Your task to perform on an android device: What is the news today? Image 0: 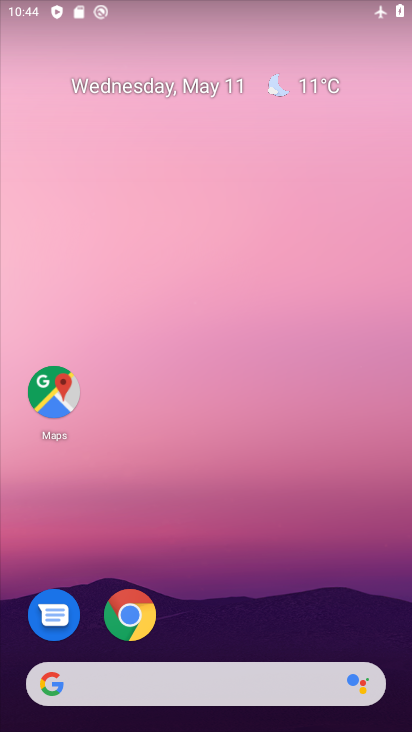
Step 0: click (132, 614)
Your task to perform on an android device: What is the news today? Image 1: 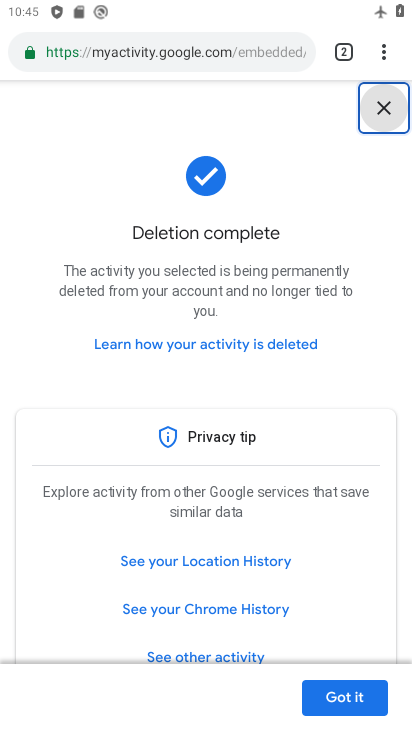
Step 1: click (201, 53)
Your task to perform on an android device: What is the news today? Image 2: 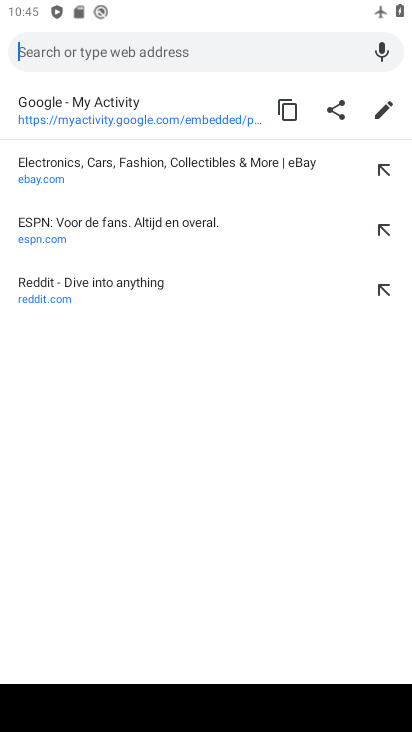
Step 2: type "news"
Your task to perform on an android device: What is the news today? Image 3: 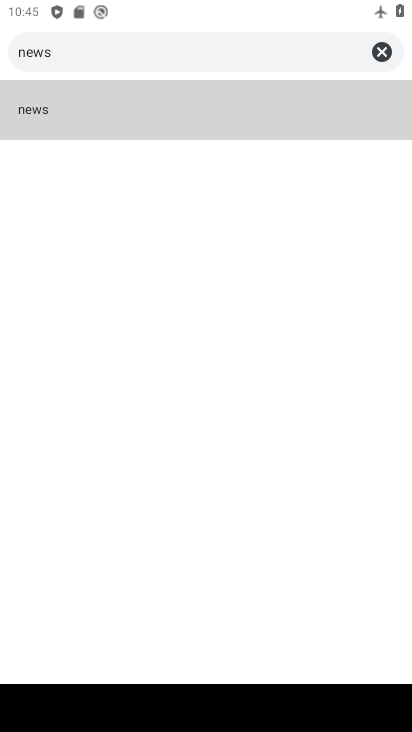
Step 3: click (28, 105)
Your task to perform on an android device: What is the news today? Image 4: 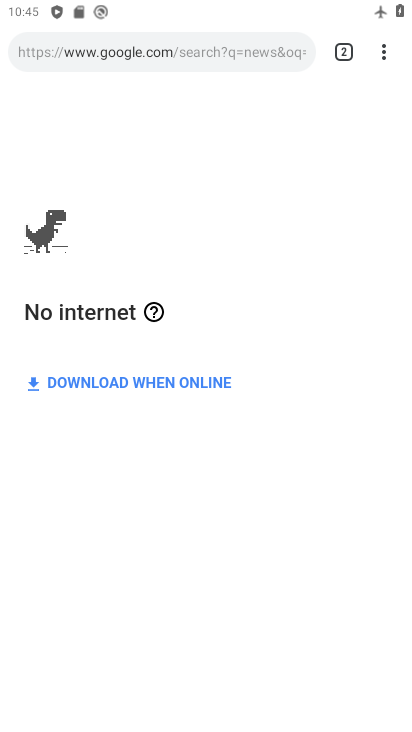
Step 4: task complete